Your task to perform on an android device: snooze an email in the gmail app Image 0: 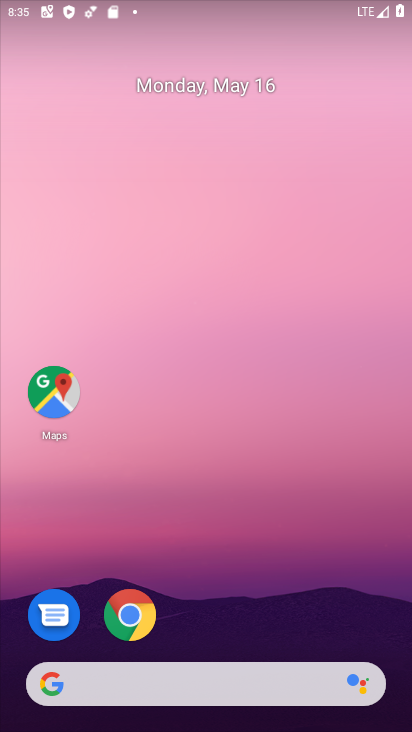
Step 0: drag from (169, 673) to (197, 207)
Your task to perform on an android device: snooze an email in the gmail app Image 1: 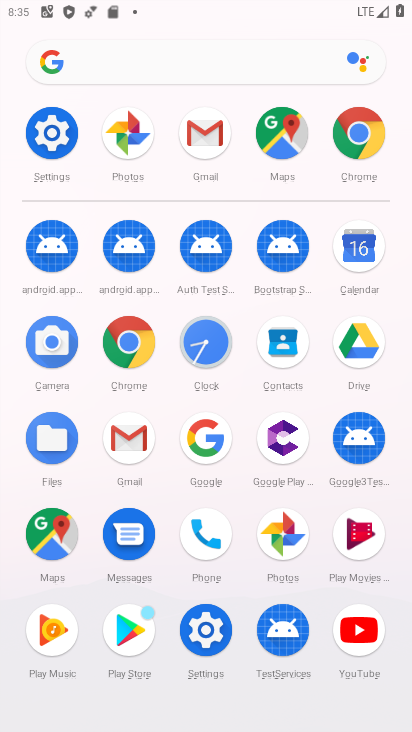
Step 1: click (133, 444)
Your task to perform on an android device: snooze an email in the gmail app Image 2: 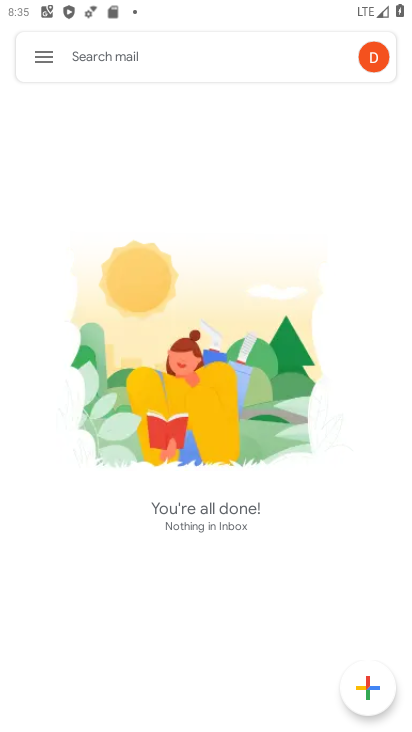
Step 2: click (40, 67)
Your task to perform on an android device: snooze an email in the gmail app Image 3: 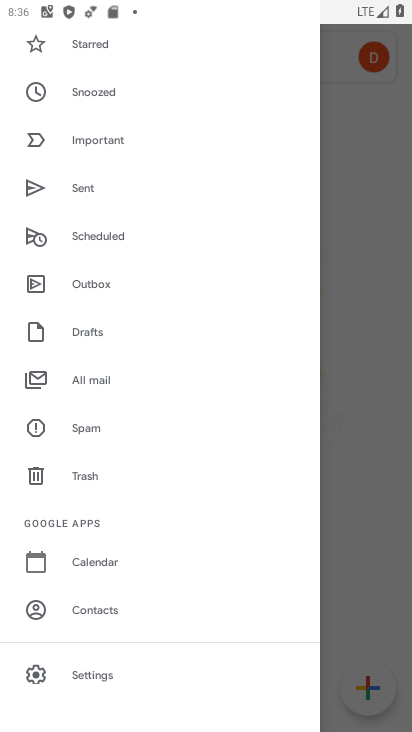
Step 3: click (104, 380)
Your task to perform on an android device: snooze an email in the gmail app Image 4: 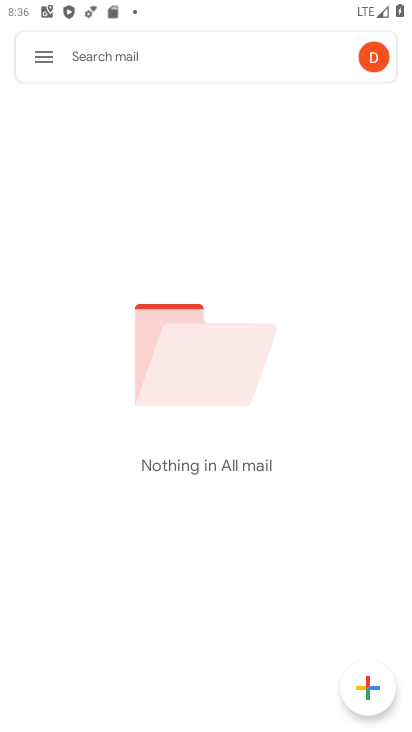
Step 4: task complete